Your task to perform on an android device: Go to privacy settings Image 0: 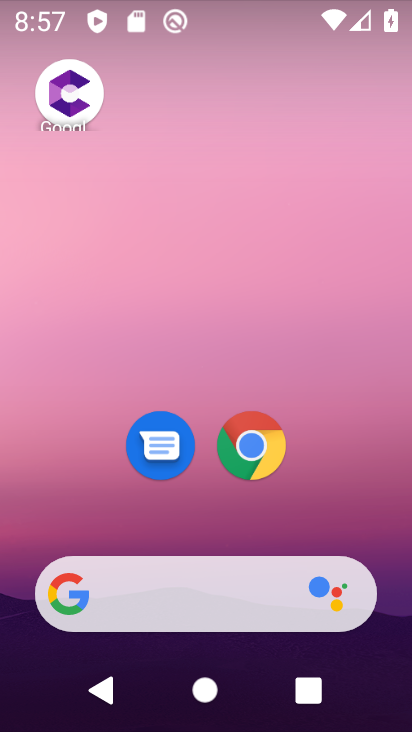
Step 0: drag from (391, 614) to (252, 69)
Your task to perform on an android device: Go to privacy settings Image 1: 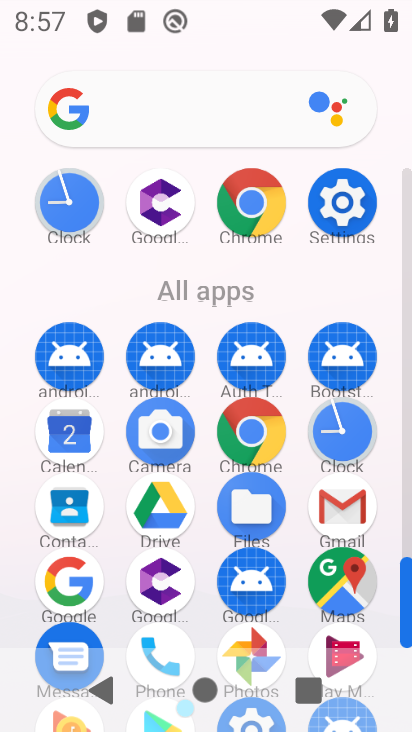
Step 1: click (349, 206)
Your task to perform on an android device: Go to privacy settings Image 2: 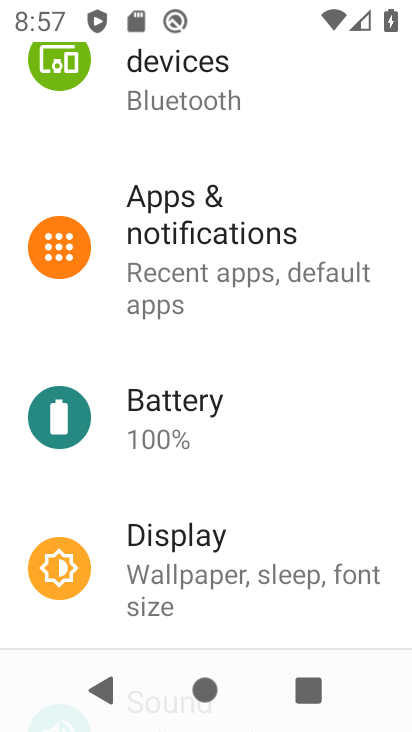
Step 2: drag from (249, 588) to (226, 400)
Your task to perform on an android device: Go to privacy settings Image 3: 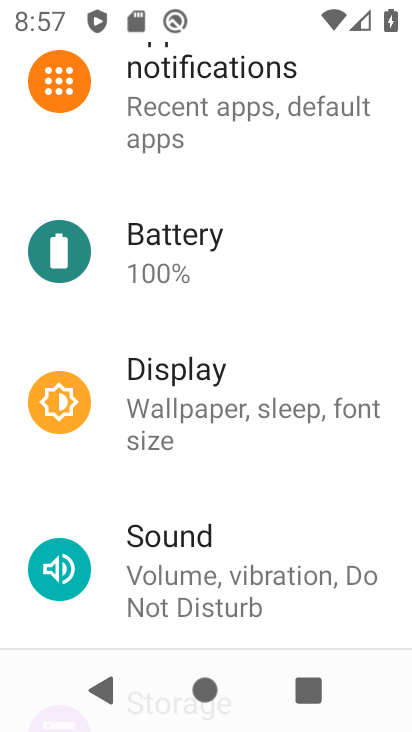
Step 3: drag from (276, 547) to (249, 87)
Your task to perform on an android device: Go to privacy settings Image 4: 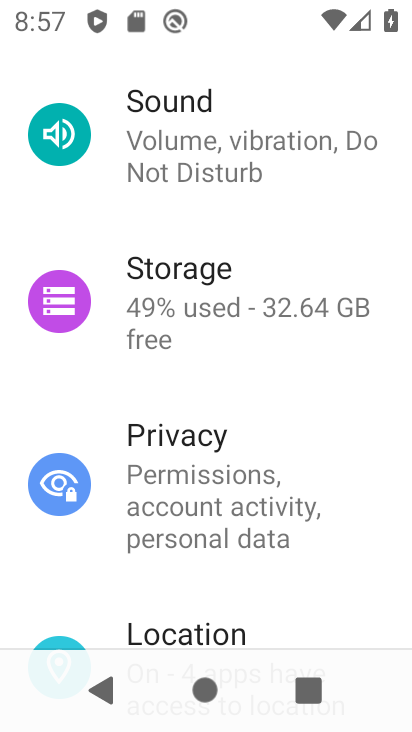
Step 4: click (254, 472)
Your task to perform on an android device: Go to privacy settings Image 5: 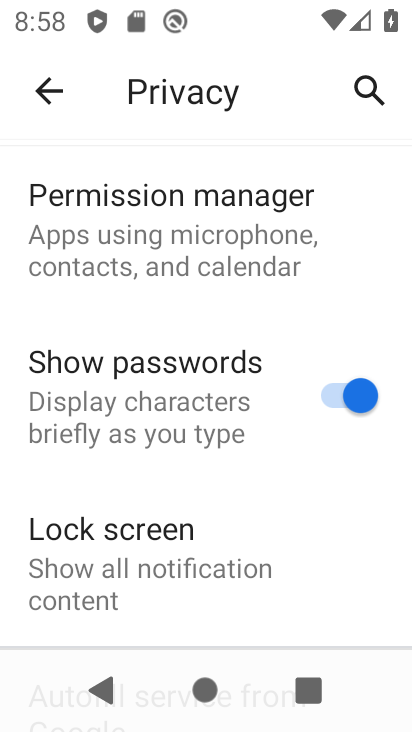
Step 5: task complete